Your task to perform on an android device: allow cookies in the chrome app Image 0: 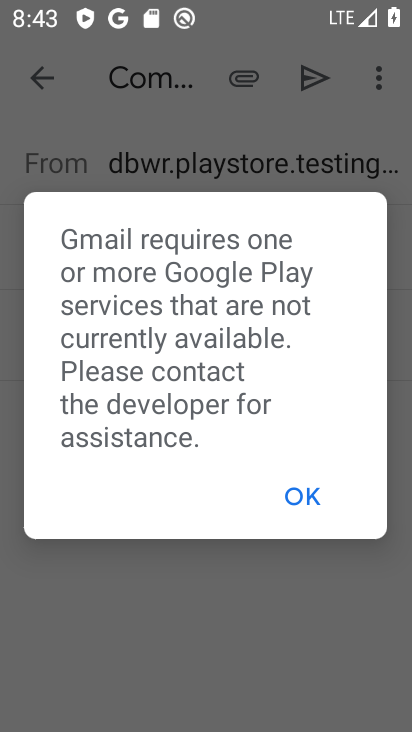
Step 0: click (320, 497)
Your task to perform on an android device: allow cookies in the chrome app Image 1: 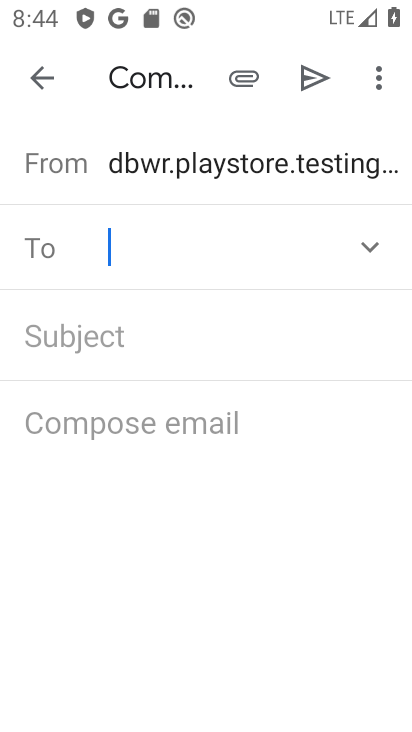
Step 1: press back button
Your task to perform on an android device: allow cookies in the chrome app Image 2: 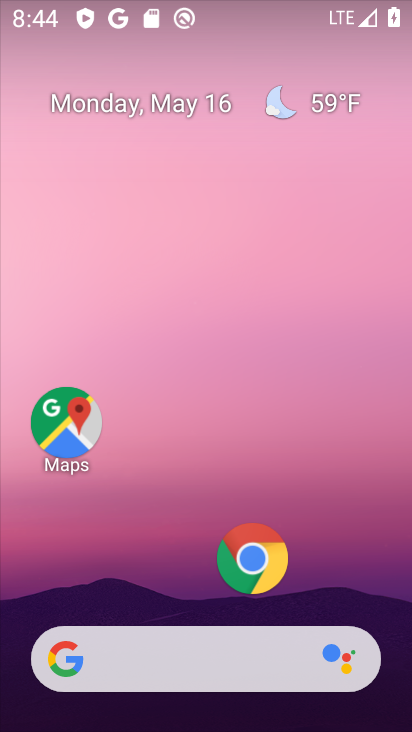
Step 2: click (260, 545)
Your task to perform on an android device: allow cookies in the chrome app Image 3: 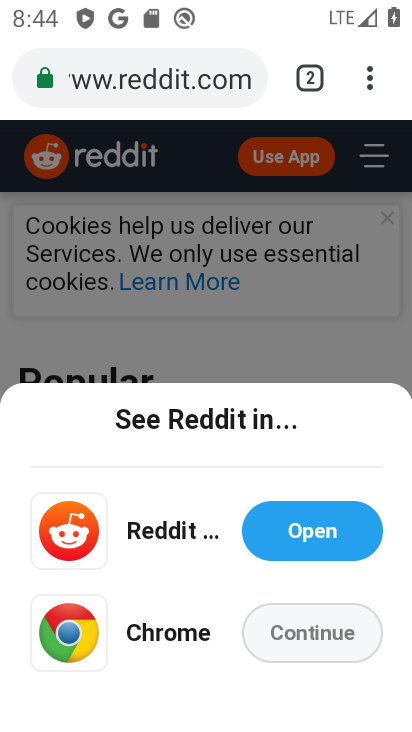
Step 3: click (377, 79)
Your task to perform on an android device: allow cookies in the chrome app Image 4: 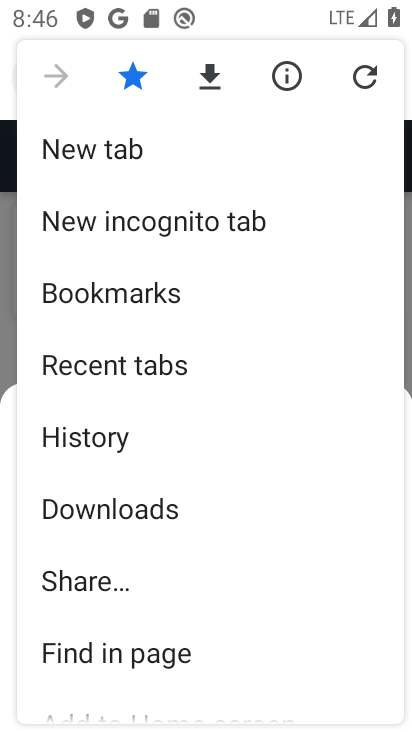
Step 4: drag from (145, 671) to (274, 179)
Your task to perform on an android device: allow cookies in the chrome app Image 5: 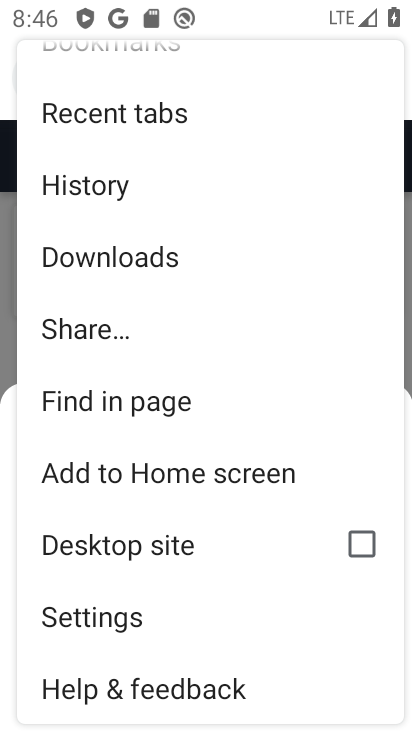
Step 5: click (57, 619)
Your task to perform on an android device: allow cookies in the chrome app Image 6: 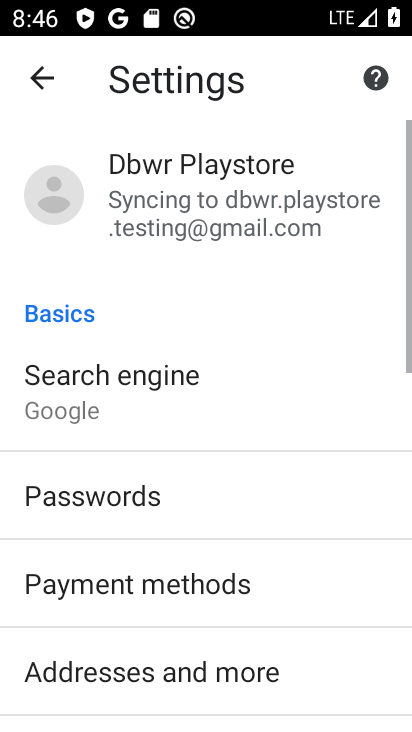
Step 6: drag from (192, 564) to (288, 76)
Your task to perform on an android device: allow cookies in the chrome app Image 7: 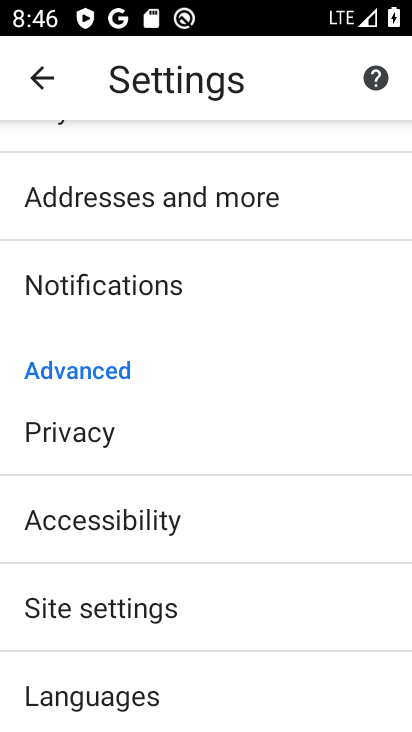
Step 7: click (99, 607)
Your task to perform on an android device: allow cookies in the chrome app Image 8: 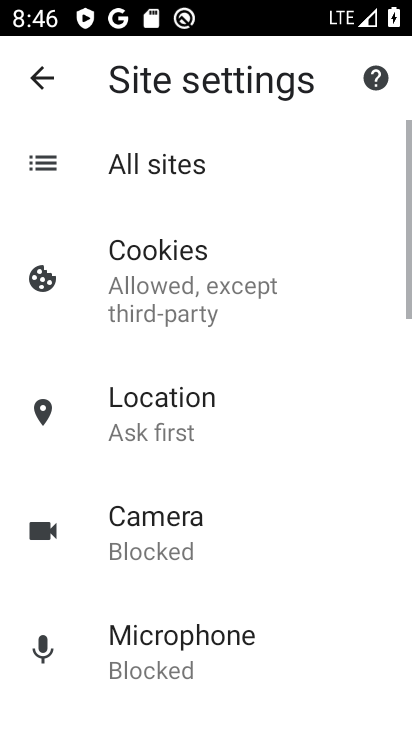
Step 8: click (191, 287)
Your task to perform on an android device: allow cookies in the chrome app Image 9: 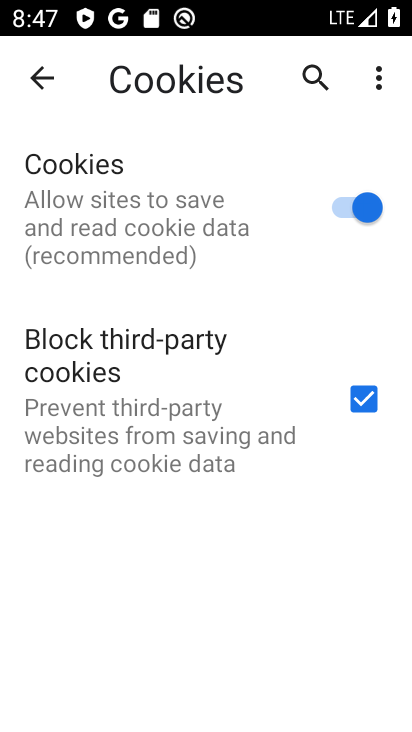
Step 9: task complete